Your task to perform on an android device: turn on bluetooth scan Image 0: 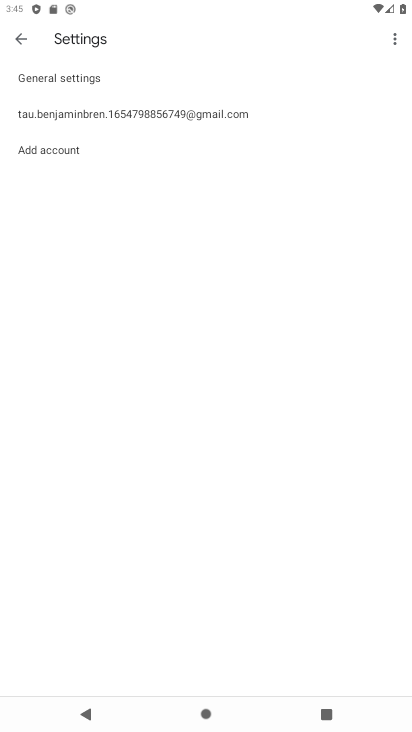
Step 0: press home button
Your task to perform on an android device: turn on bluetooth scan Image 1: 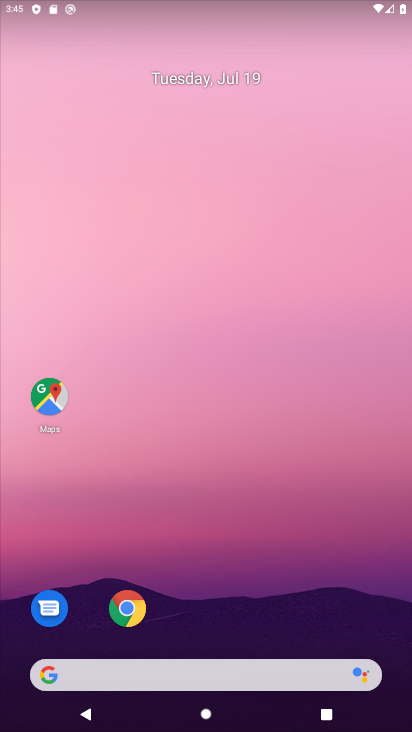
Step 1: drag from (275, 610) to (228, 101)
Your task to perform on an android device: turn on bluetooth scan Image 2: 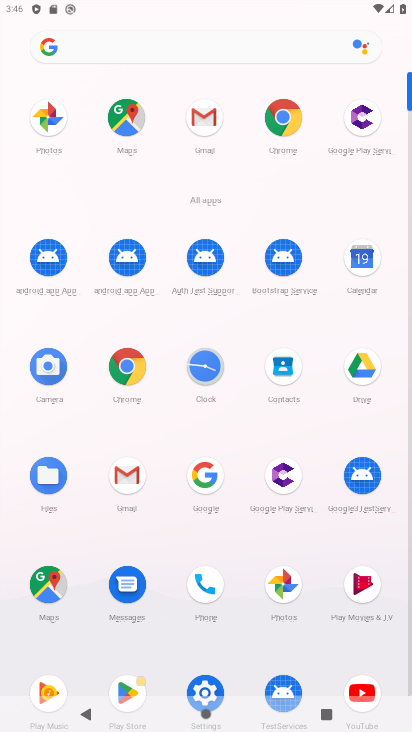
Step 2: click (206, 688)
Your task to perform on an android device: turn on bluetooth scan Image 3: 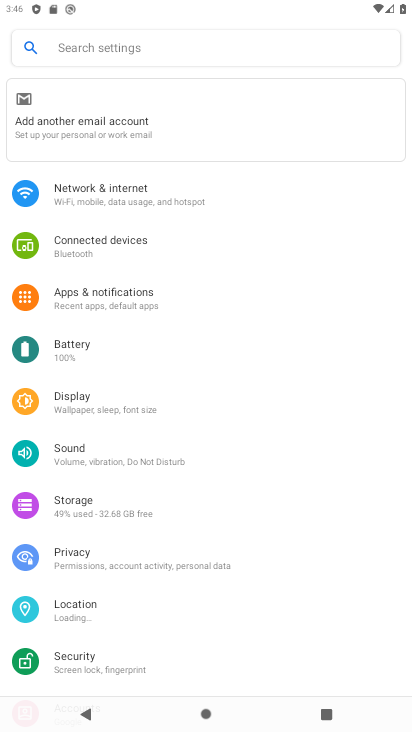
Step 3: click (151, 606)
Your task to perform on an android device: turn on bluetooth scan Image 4: 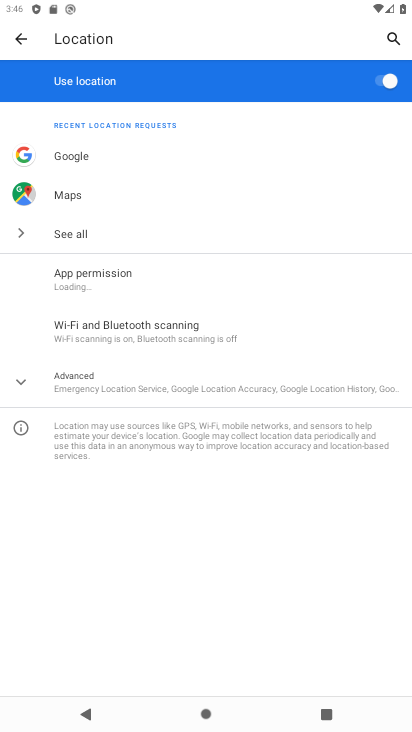
Step 4: click (179, 331)
Your task to perform on an android device: turn on bluetooth scan Image 5: 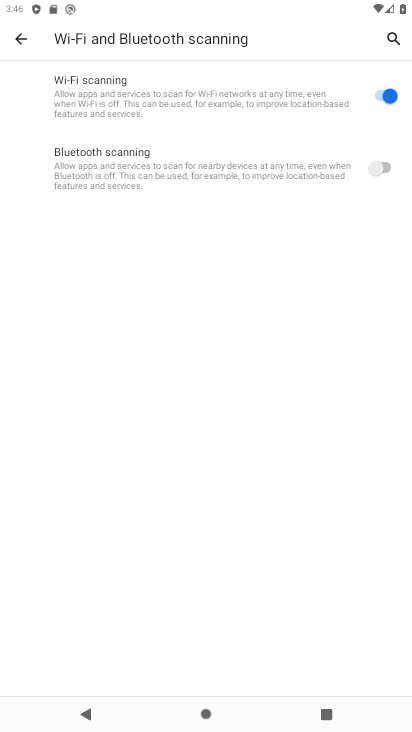
Step 5: click (385, 170)
Your task to perform on an android device: turn on bluetooth scan Image 6: 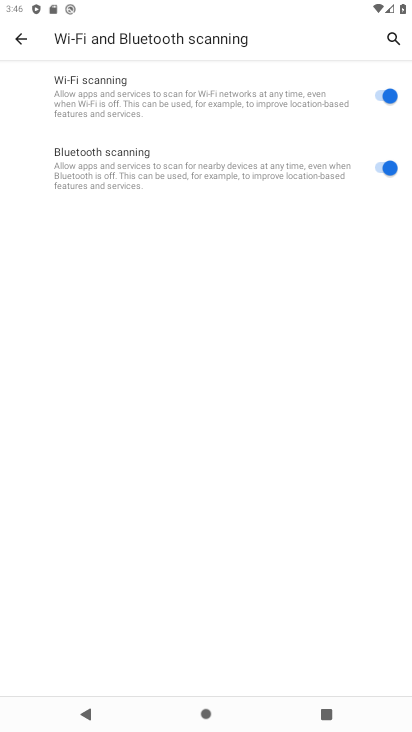
Step 6: task complete